Your task to perform on an android device: toggle location history Image 0: 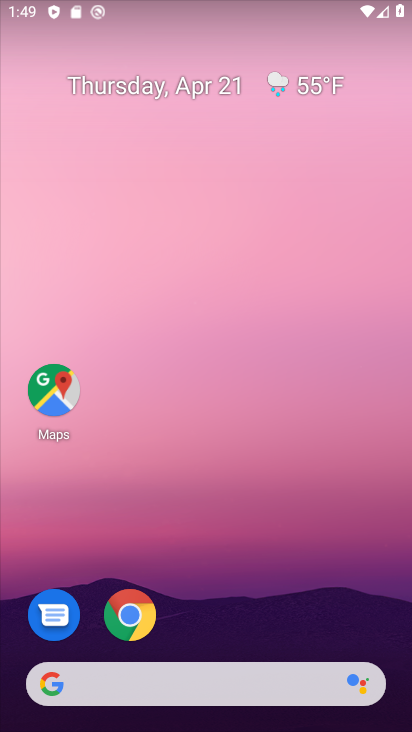
Step 0: drag from (192, 660) to (257, 213)
Your task to perform on an android device: toggle location history Image 1: 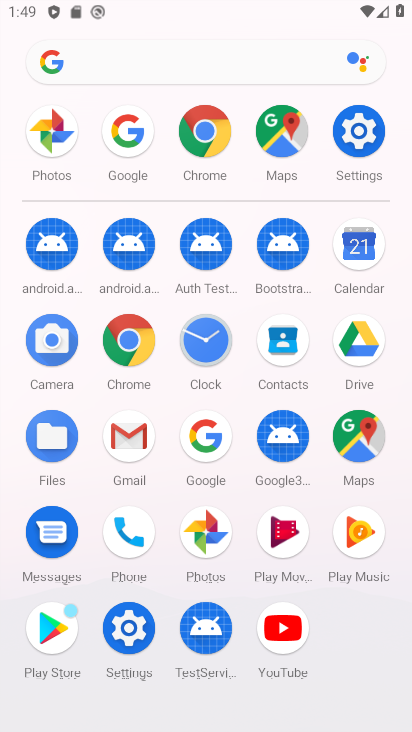
Step 1: click (361, 134)
Your task to perform on an android device: toggle location history Image 2: 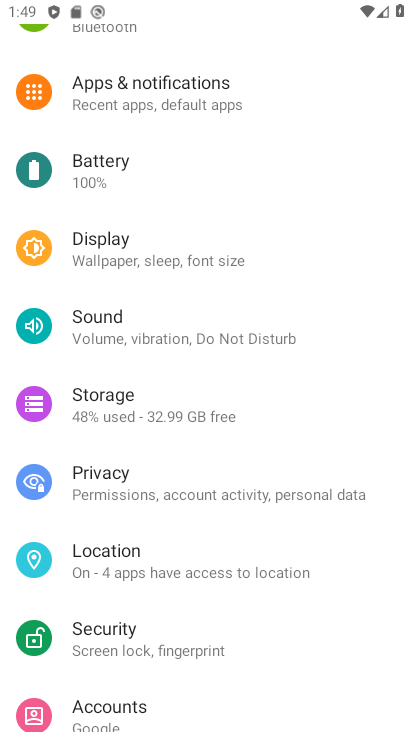
Step 2: click (110, 550)
Your task to perform on an android device: toggle location history Image 3: 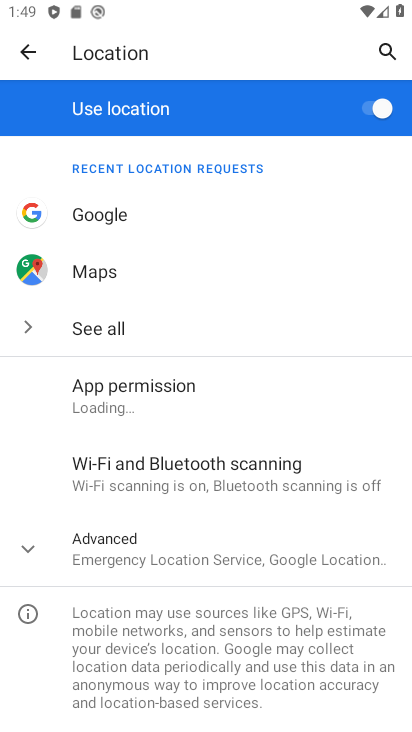
Step 3: click (110, 550)
Your task to perform on an android device: toggle location history Image 4: 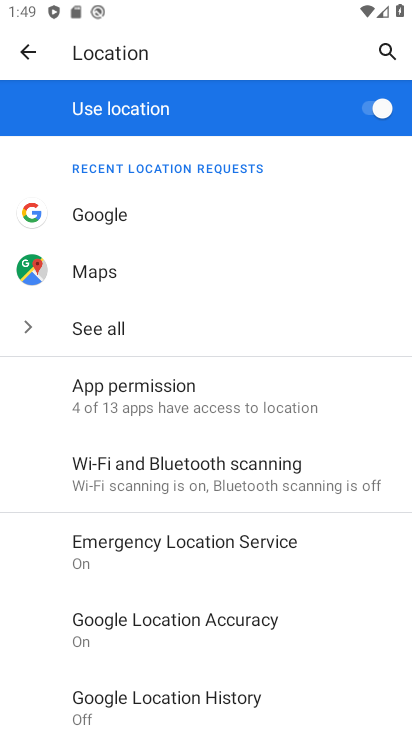
Step 4: click (136, 699)
Your task to perform on an android device: toggle location history Image 5: 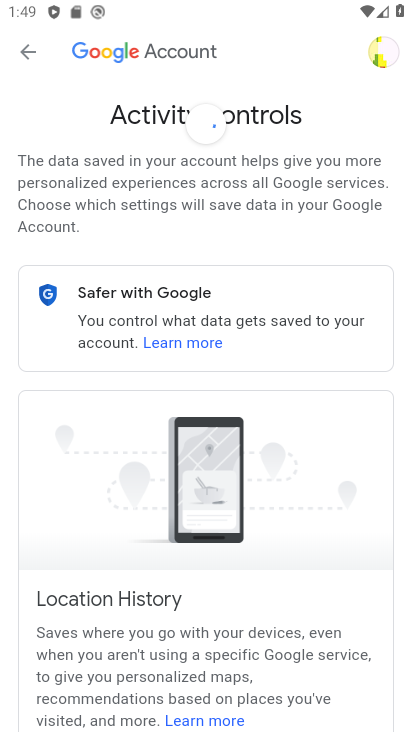
Step 5: drag from (178, 678) to (243, 264)
Your task to perform on an android device: toggle location history Image 6: 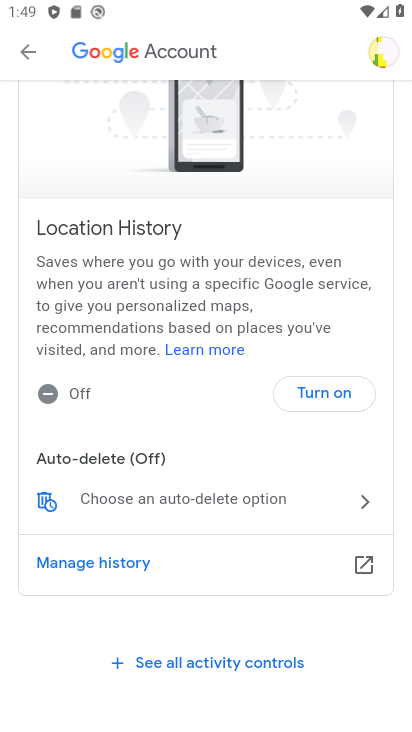
Step 6: click (320, 400)
Your task to perform on an android device: toggle location history Image 7: 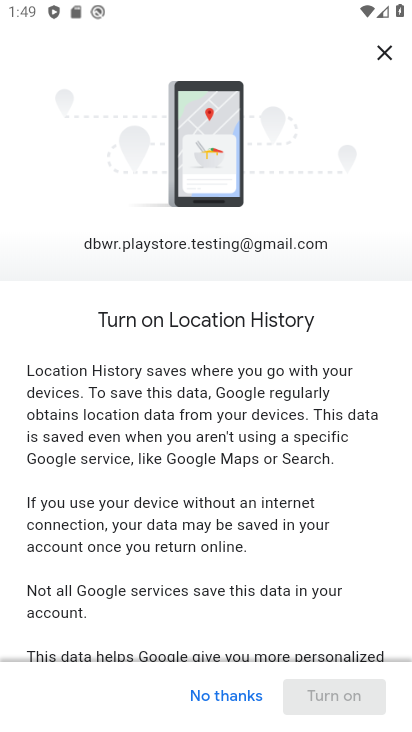
Step 7: drag from (311, 651) to (358, 294)
Your task to perform on an android device: toggle location history Image 8: 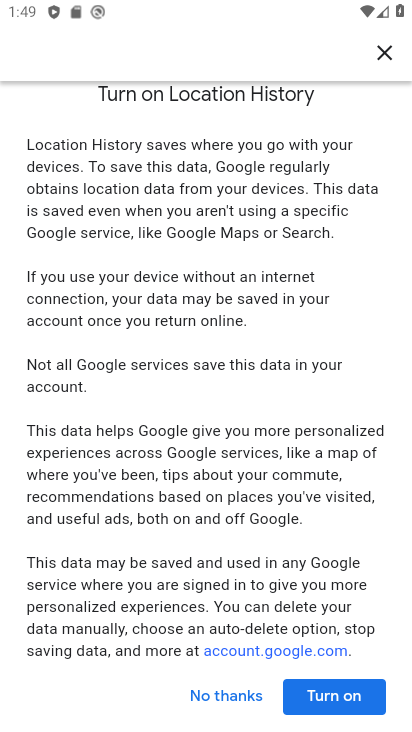
Step 8: click (336, 696)
Your task to perform on an android device: toggle location history Image 9: 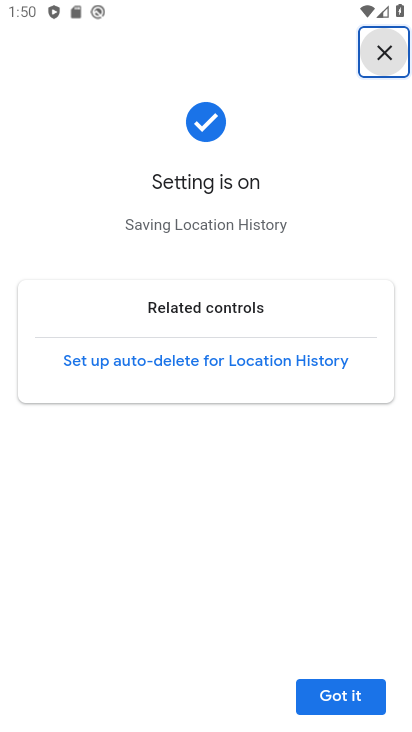
Step 9: click (336, 696)
Your task to perform on an android device: toggle location history Image 10: 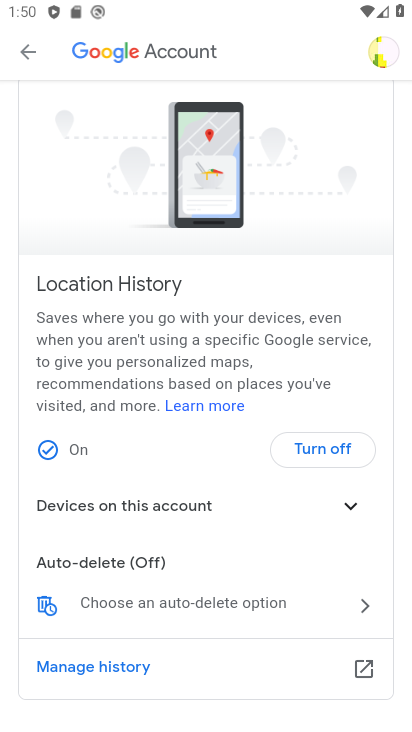
Step 10: task complete